Your task to perform on an android device: Show me recent news Image 0: 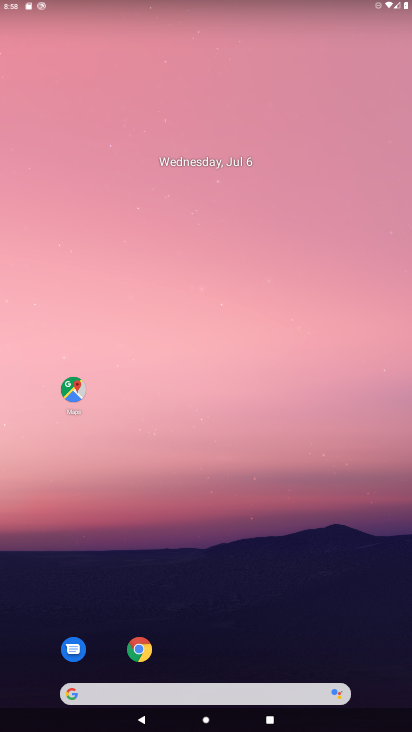
Step 0: drag from (221, 645) to (211, 300)
Your task to perform on an android device: Show me recent news Image 1: 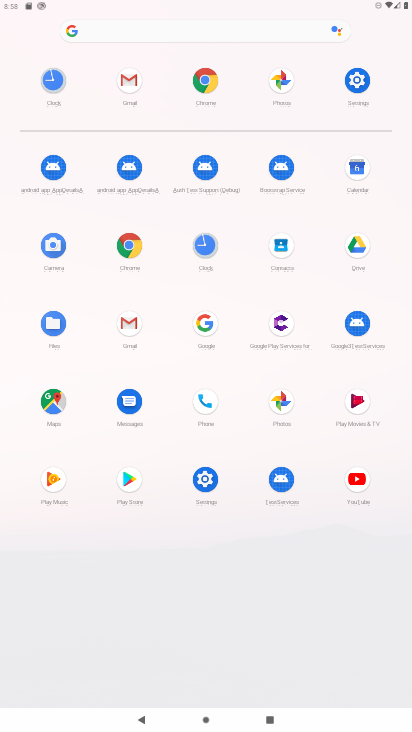
Step 1: click (135, 243)
Your task to perform on an android device: Show me recent news Image 2: 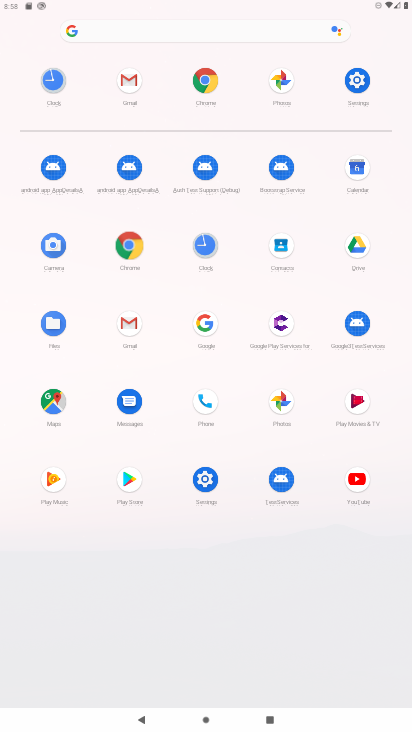
Step 2: click (133, 243)
Your task to perform on an android device: Show me recent news Image 3: 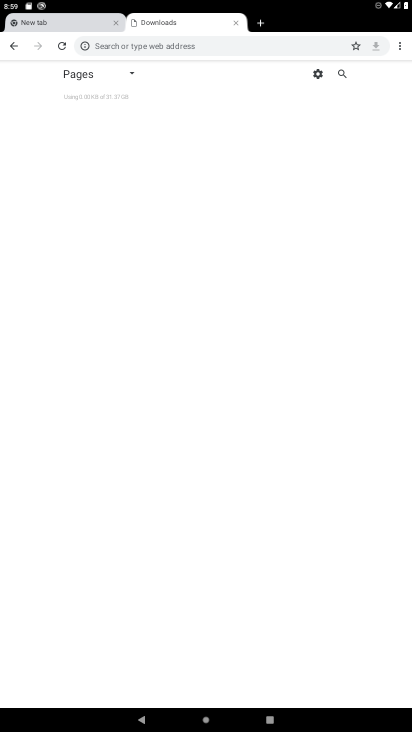
Step 3: click (125, 45)
Your task to perform on an android device: Show me recent news Image 4: 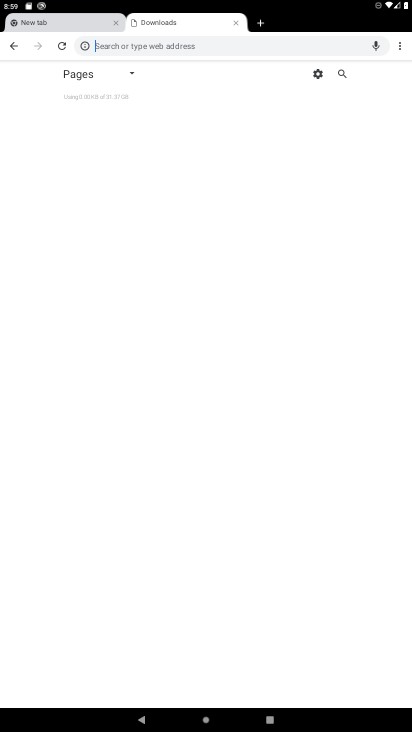
Step 4: click (124, 45)
Your task to perform on an android device: Show me recent news Image 5: 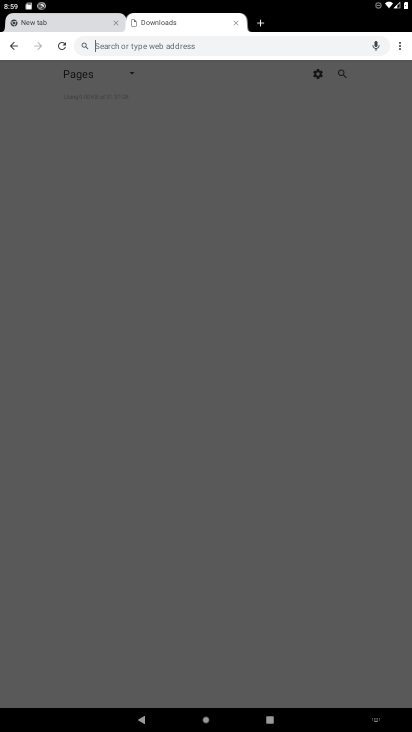
Step 5: click (234, 24)
Your task to perform on an android device: Show me recent news Image 6: 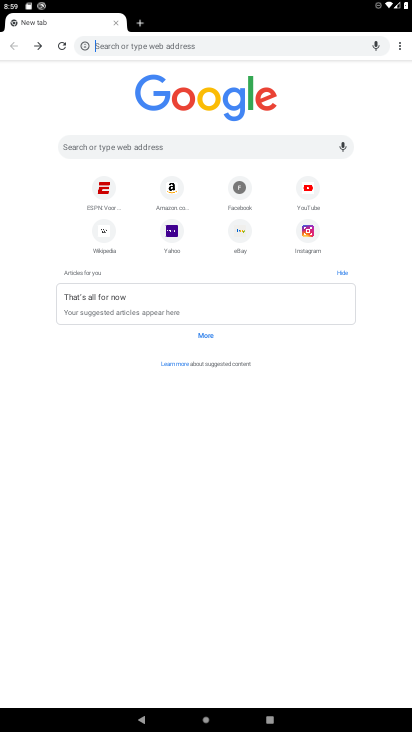
Step 6: click (234, 24)
Your task to perform on an android device: Show me recent news Image 7: 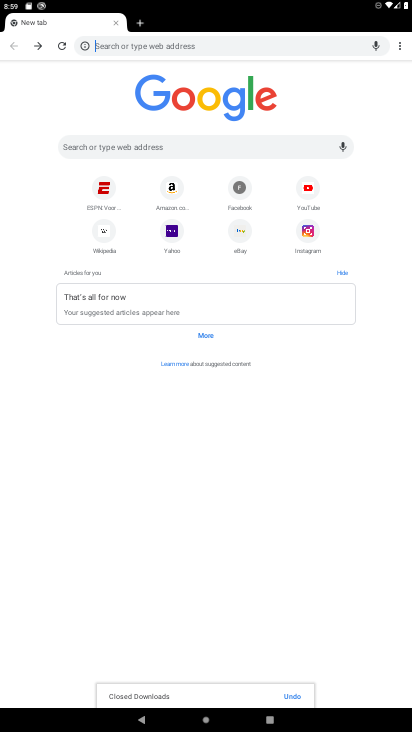
Step 7: click (87, 149)
Your task to perform on an android device: Show me recent news Image 8: 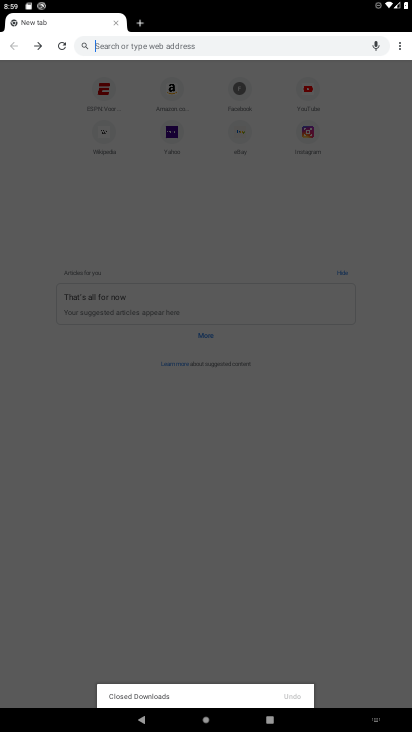
Step 8: click (89, 147)
Your task to perform on an android device: Show me recent news Image 9: 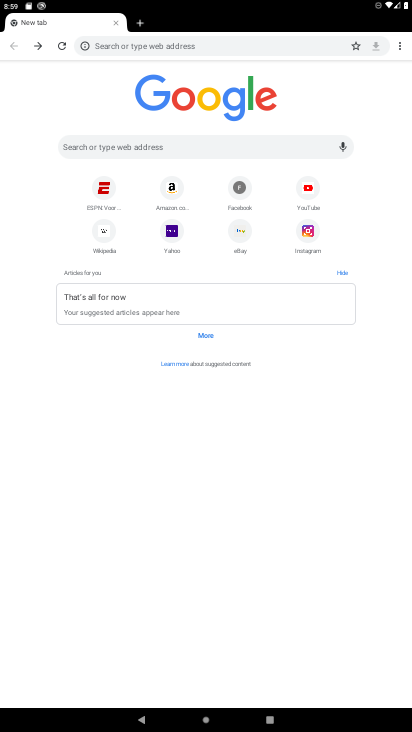
Step 9: click (81, 145)
Your task to perform on an android device: Show me recent news Image 10: 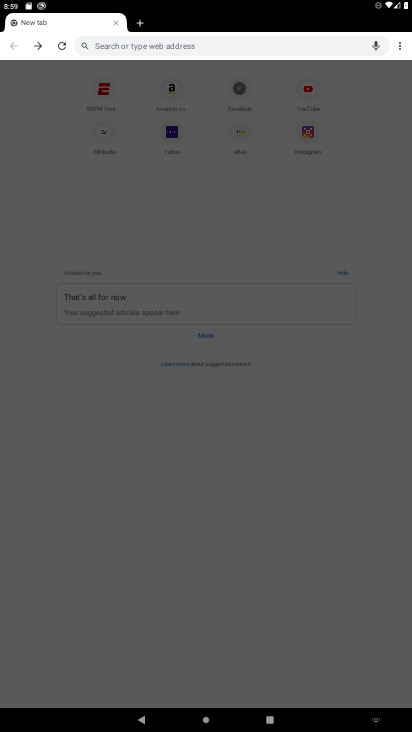
Step 10: type "recen news"
Your task to perform on an android device: Show me recent news Image 11: 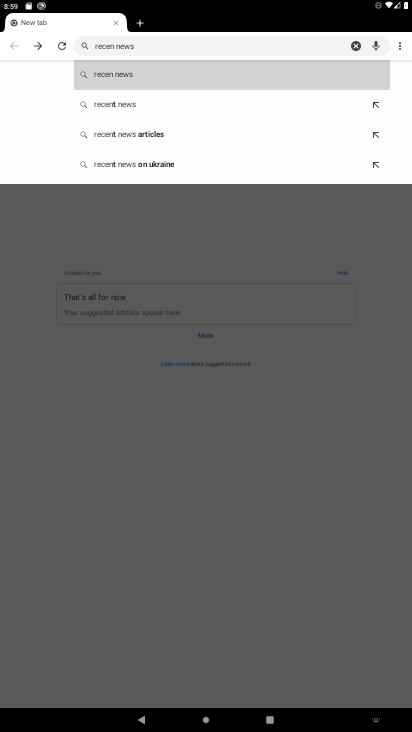
Step 11: click (367, 99)
Your task to perform on an android device: Show me recent news Image 12: 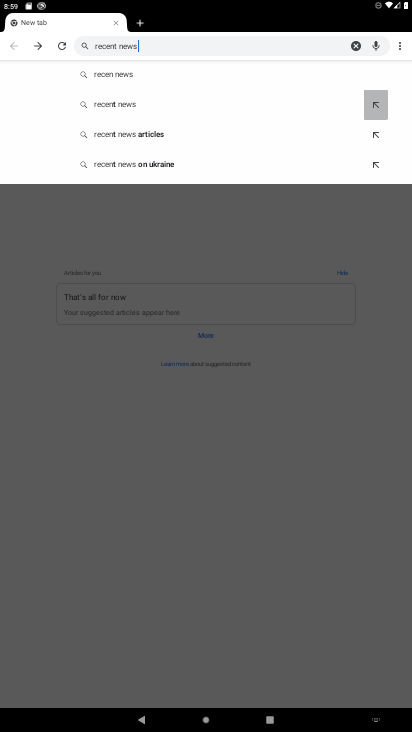
Step 12: click (372, 103)
Your task to perform on an android device: Show me recent news Image 13: 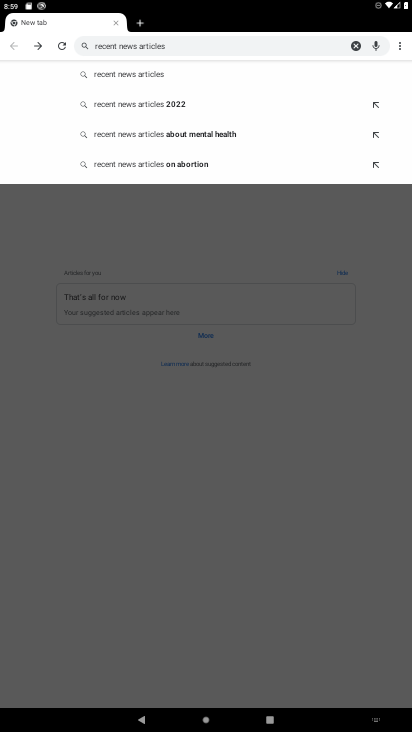
Step 13: click (370, 102)
Your task to perform on an android device: Show me recent news Image 14: 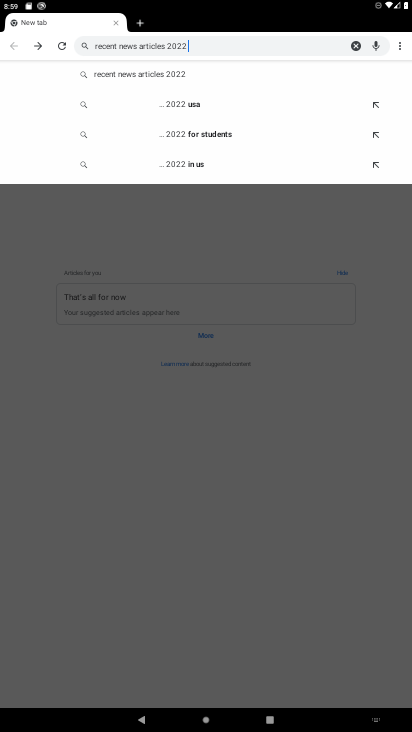
Step 14: click (373, 102)
Your task to perform on an android device: Show me recent news Image 15: 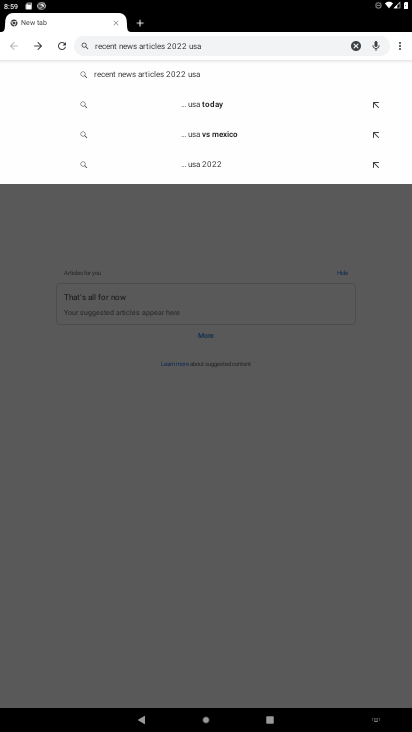
Step 15: click (173, 76)
Your task to perform on an android device: Show me recent news Image 16: 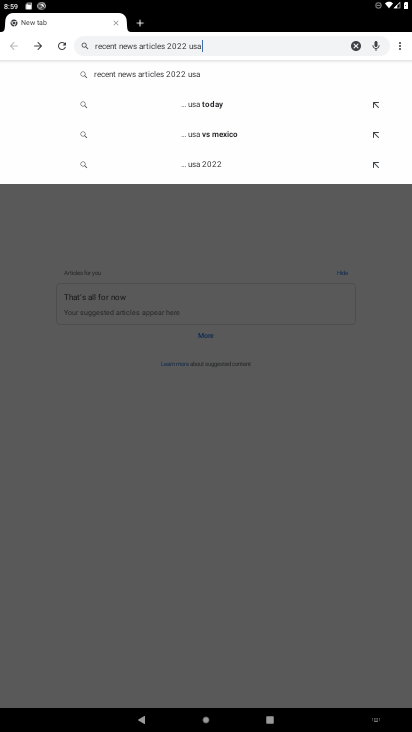
Step 16: click (173, 76)
Your task to perform on an android device: Show me recent news Image 17: 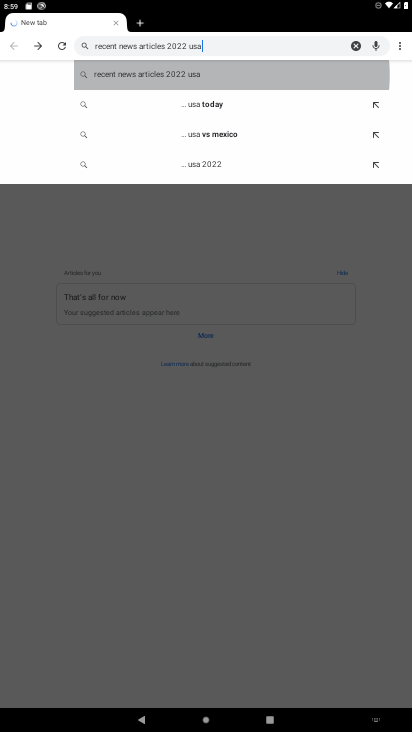
Step 17: click (173, 76)
Your task to perform on an android device: Show me recent news Image 18: 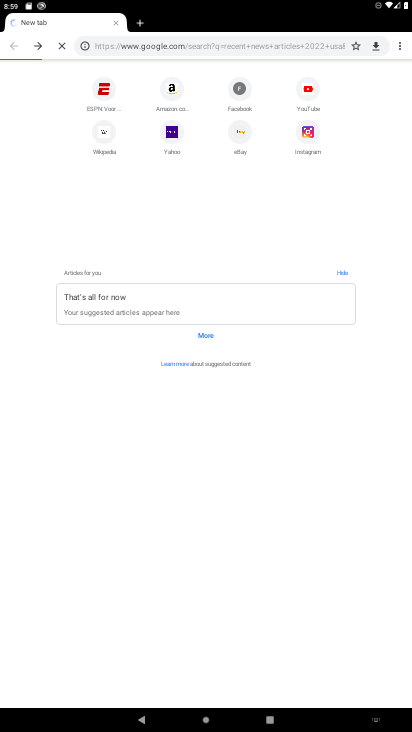
Step 18: click (173, 76)
Your task to perform on an android device: Show me recent news Image 19: 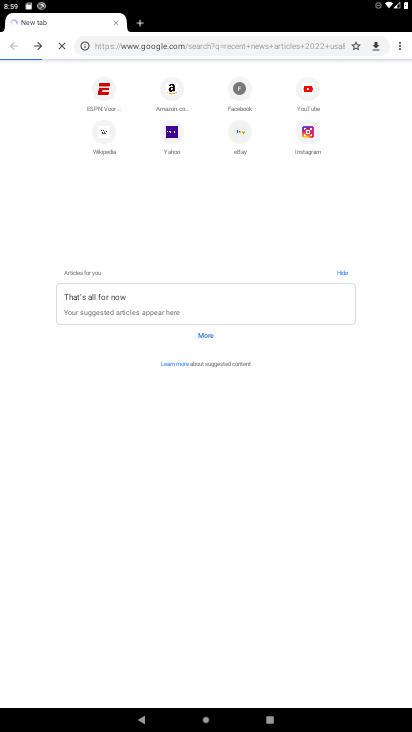
Step 19: click (173, 76)
Your task to perform on an android device: Show me recent news Image 20: 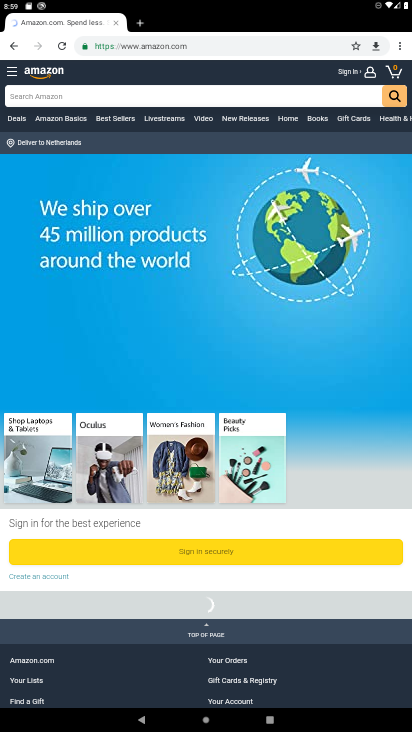
Step 20: task complete